Your task to perform on an android device: Open the stopwatch Image 0: 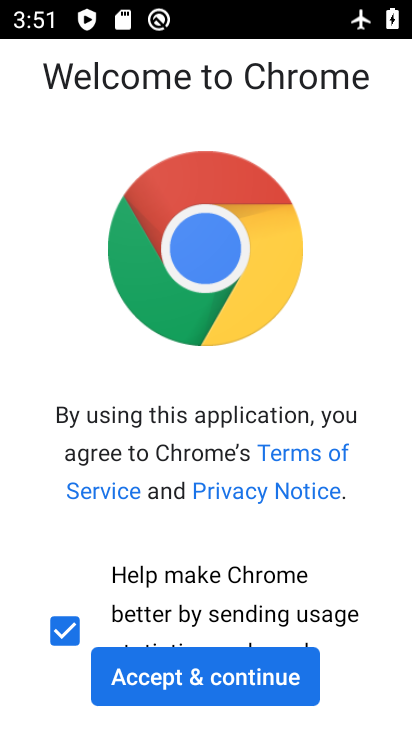
Step 0: press back button
Your task to perform on an android device: Open the stopwatch Image 1: 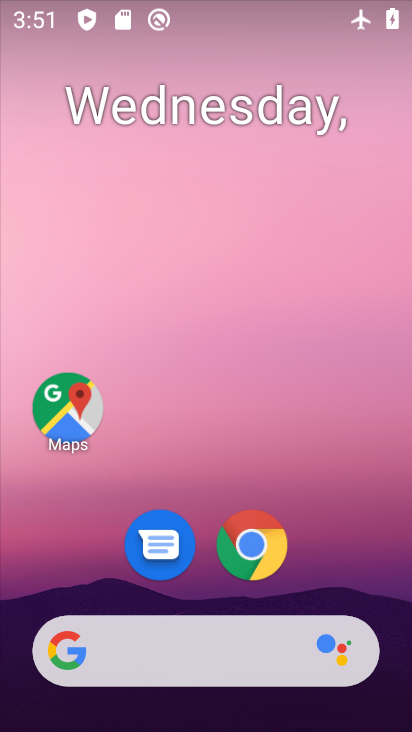
Step 1: drag from (332, 571) to (364, 4)
Your task to perform on an android device: Open the stopwatch Image 2: 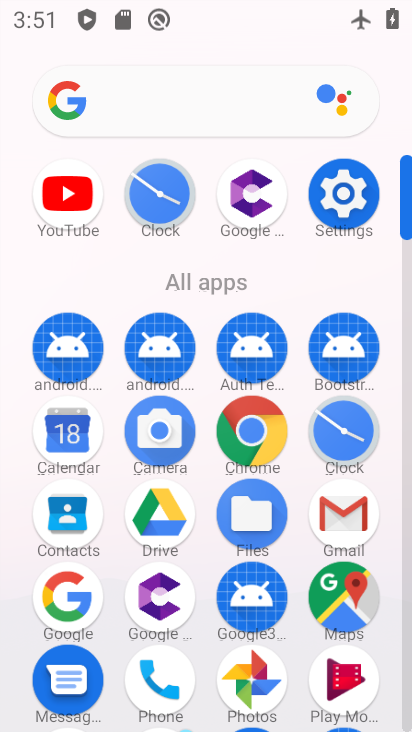
Step 2: click (341, 430)
Your task to perform on an android device: Open the stopwatch Image 3: 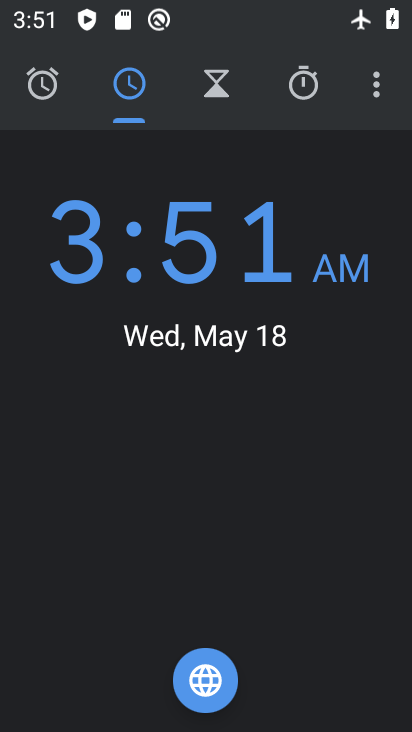
Step 3: click (304, 83)
Your task to perform on an android device: Open the stopwatch Image 4: 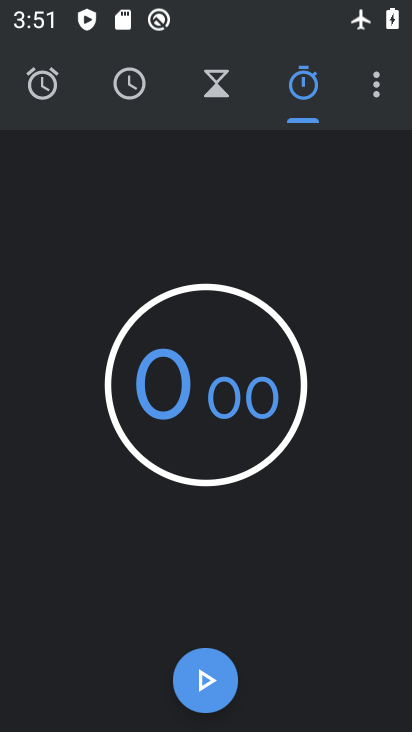
Step 4: task complete